Your task to perform on an android device: What's the weather today? Image 0: 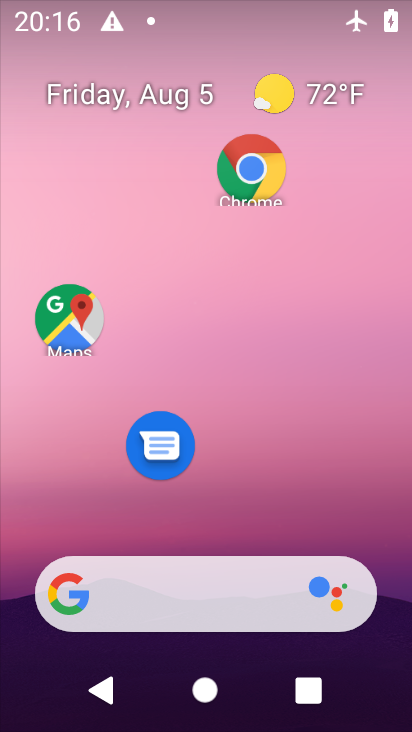
Step 0: drag from (203, 439) to (197, 104)
Your task to perform on an android device: What's the weather today? Image 1: 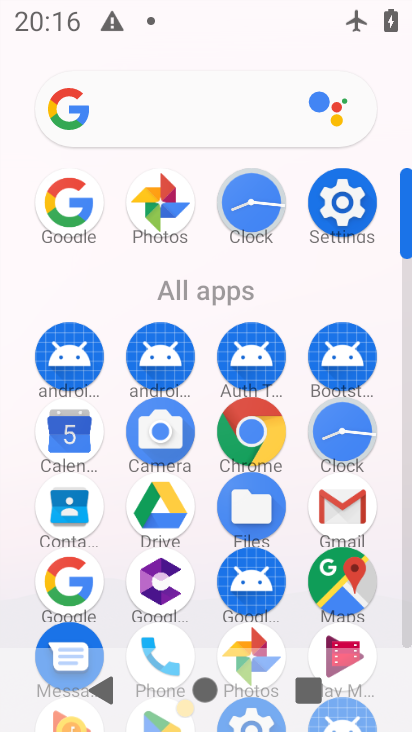
Step 1: click (53, 593)
Your task to perform on an android device: What's the weather today? Image 2: 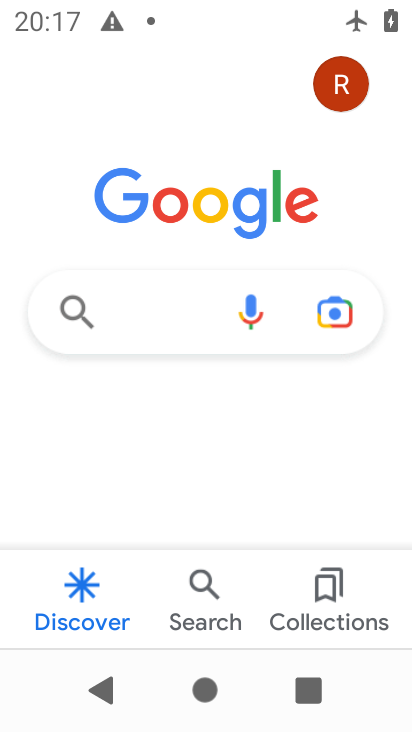
Step 2: click (141, 309)
Your task to perform on an android device: What's the weather today? Image 3: 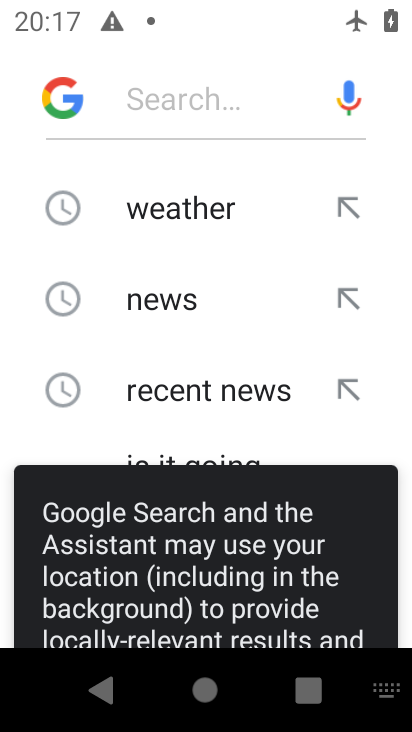
Step 3: click (172, 221)
Your task to perform on an android device: What's the weather today? Image 4: 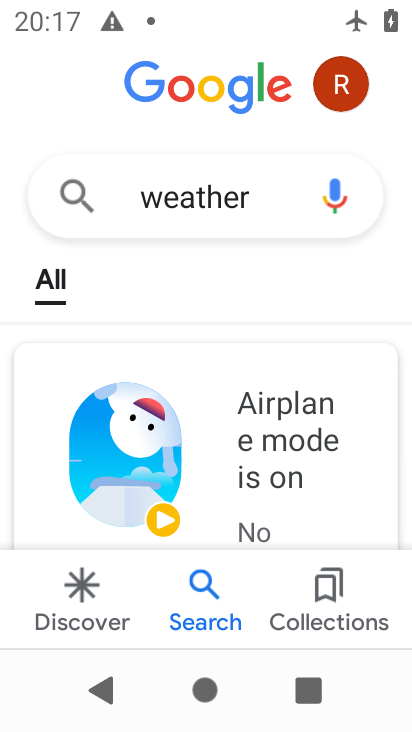
Step 4: task complete